Your task to perform on an android device: Open Yahoo.com Image 0: 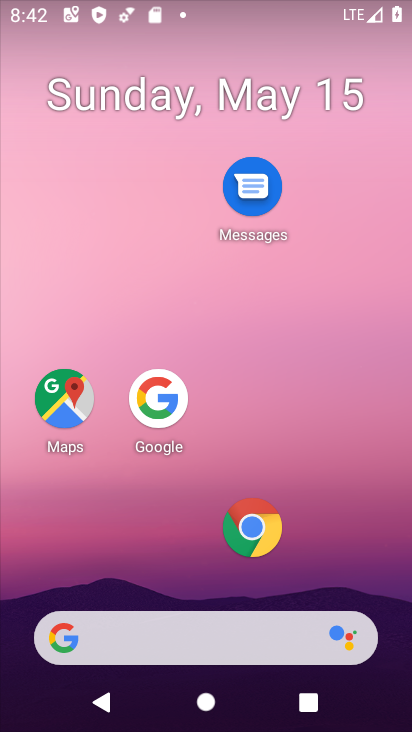
Step 0: press home button
Your task to perform on an android device: Open Yahoo.com Image 1: 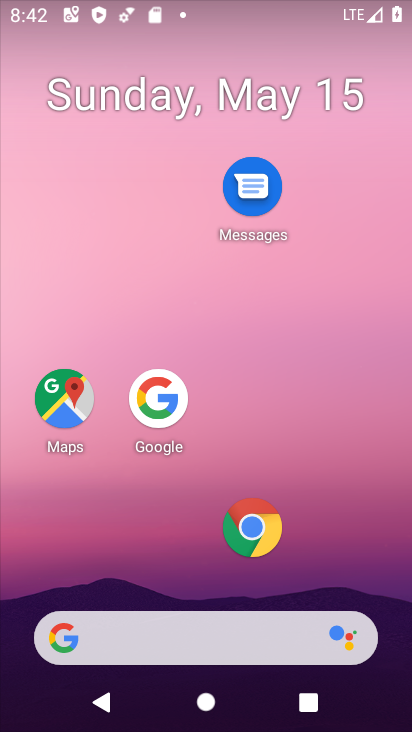
Step 1: click (257, 522)
Your task to perform on an android device: Open Yahoo.com Image 2: 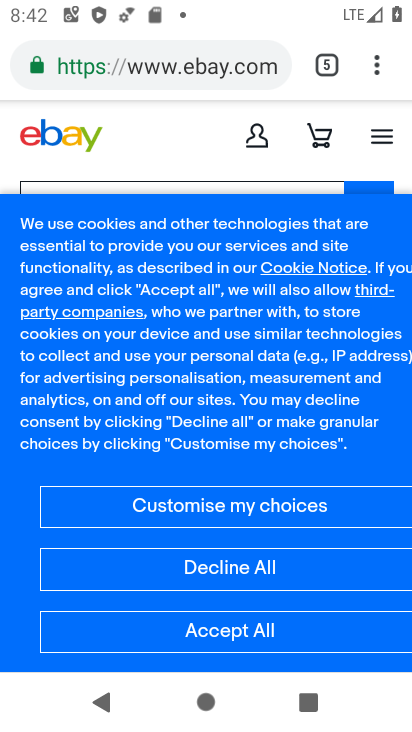
Step 2: drag from (372, 68) to (238, 125)
Your task to perform on an android device: Open Yahoo.com Image 3: 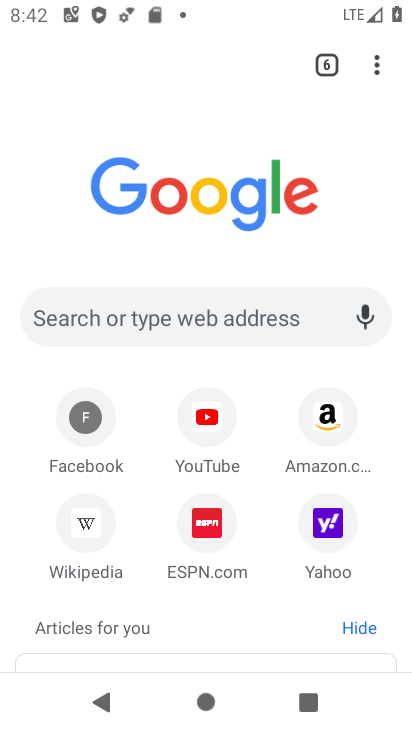
Step 3: click (332, 518)
Your task to perform on an android device: Open Yahoo.com Image 4: 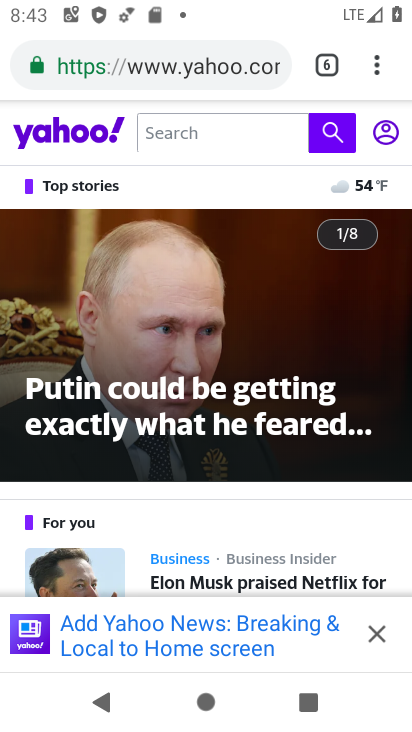
Step 4: task complete